Your task to perform on an android device: turn notification dots off Image 0: 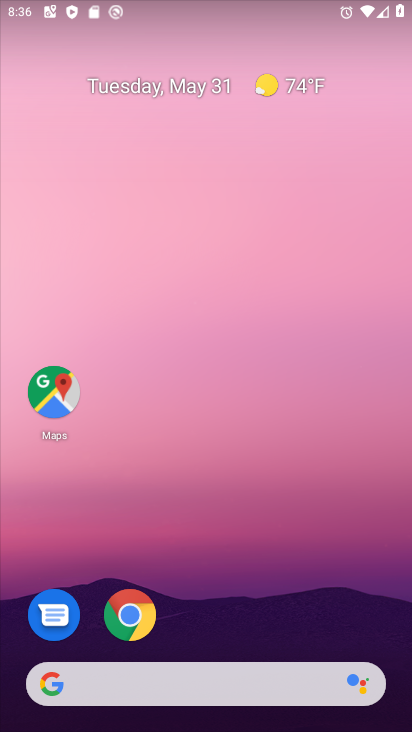
Step 0: drag from (221, 619) to (234, 151)
Your task to perform on an android device: turn notification dots off Image 1: 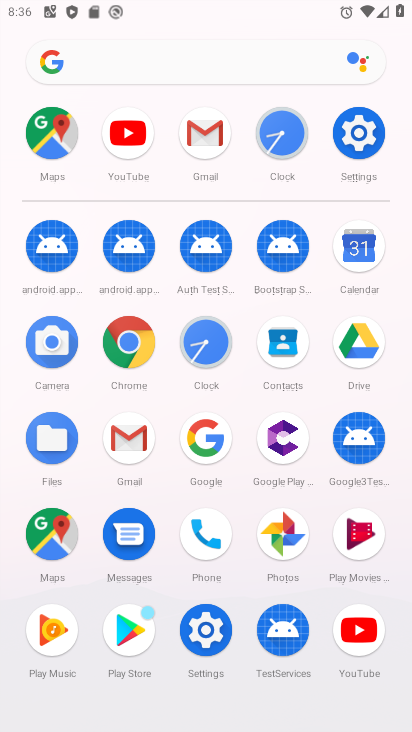
Step 1: click (344, 144)
Your task to perform on an android device: turn notification dots off Image 2: 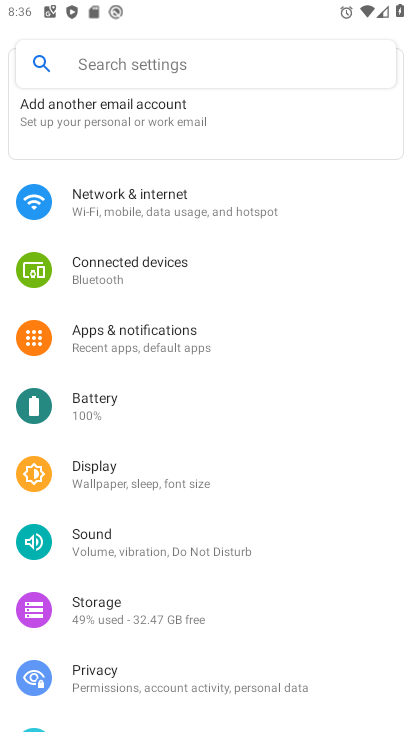
Step 2: click (189, 346)
Your task to perform on an android device: turn notification dots off Image 3: 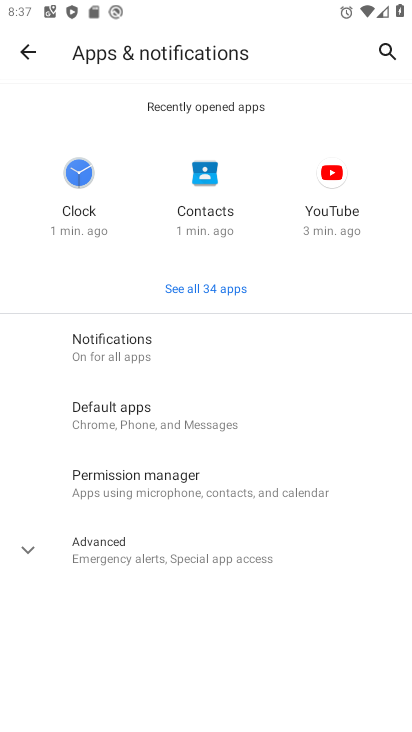
Step 3: click (190, 360)
Your task to perform on an android device: turn notification dots off Image 4: 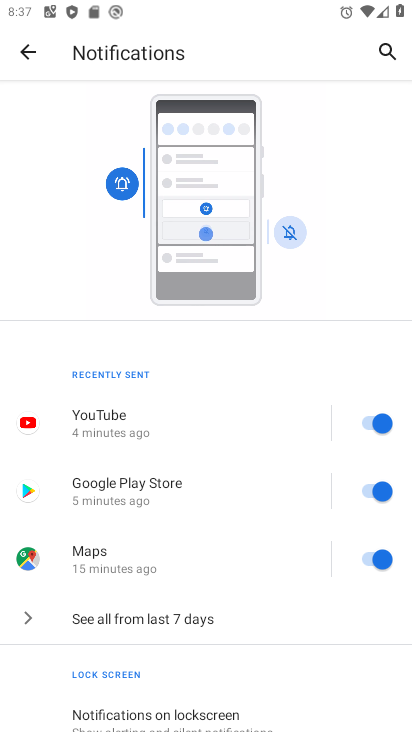
Step 4: drag from (201, 672) to (248, 334)
Your task to perform on an android device: turn notification dots off Image 5: 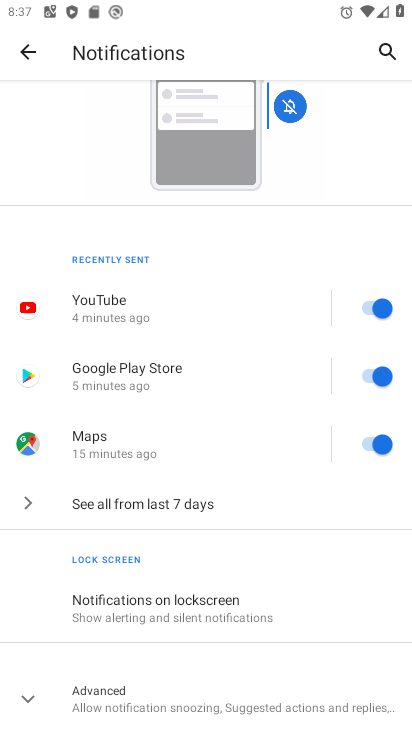
Step 5: click (184, 683)
Your task to perform on an android device: turn notification dots off Image 6: 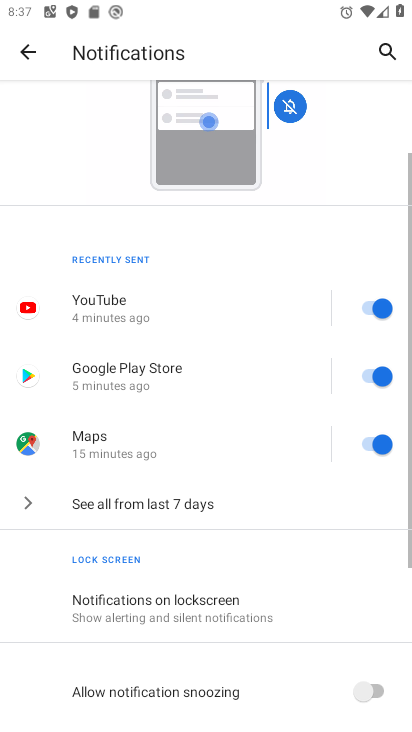
Step 6: drag from (213, 646) to (270, 391)
Your task to perform on an android device: turn notification dots off Image 7: 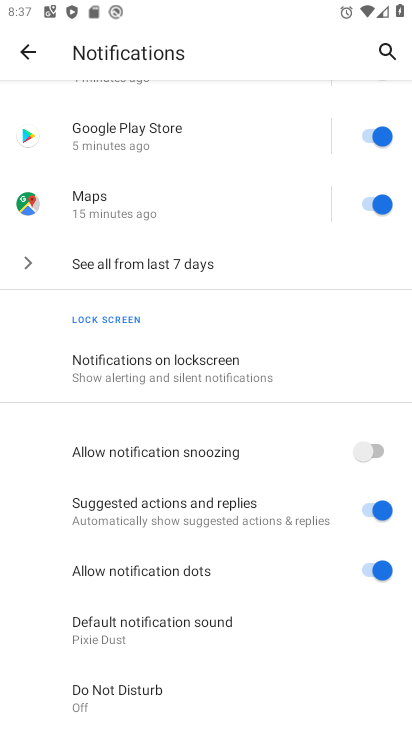
Step 7: click (380, 576)
Your task to perform on an android device: turn notification dots off Image 8: 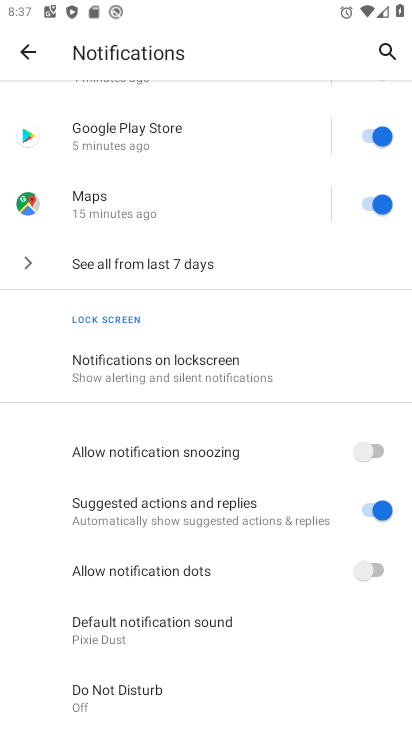
Step 8: task complete